Your task to perform on an android device: make emails show in primary in the gmail app Image 0: 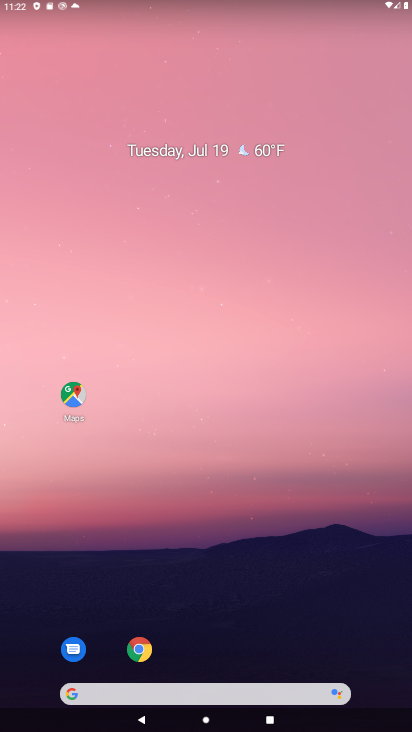
Step 0: drag from (210, 686) to (193, 35)
Your task to perform on an android device: make emails show in primary in the gmail app Image 1: 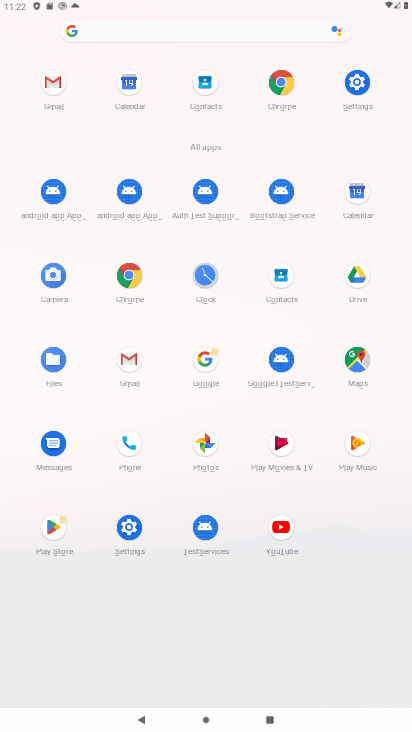
Step 1: click (128, 369)
Your task to perform on an android device: make emails show in primary in the gmail app Image 2: 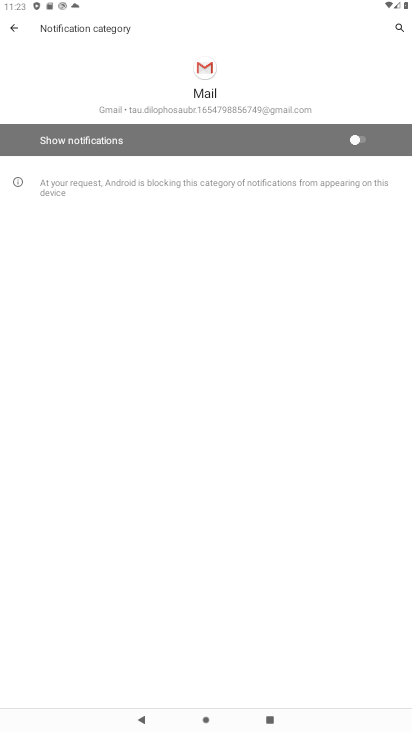
Step 2: click (5, 17)
Your task to perform on an android device: make emails show in primary in the gmail app Image 3: 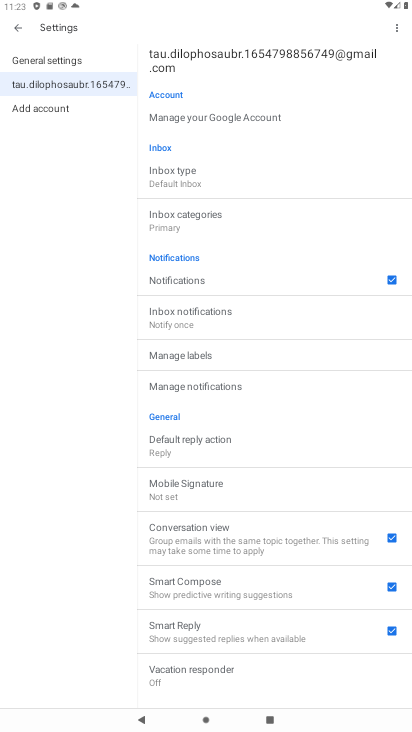
Step 3: click (200, 171)
Your task to perform on an android device: make emails show in primary in the gmail app Image 4: 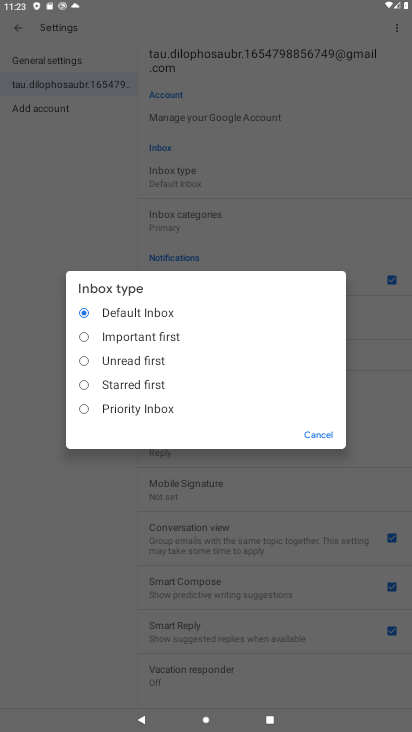
Step 4: click (140, 311)
Your task to perform on an android device: make emails show in primary in the gmail app Image 5: 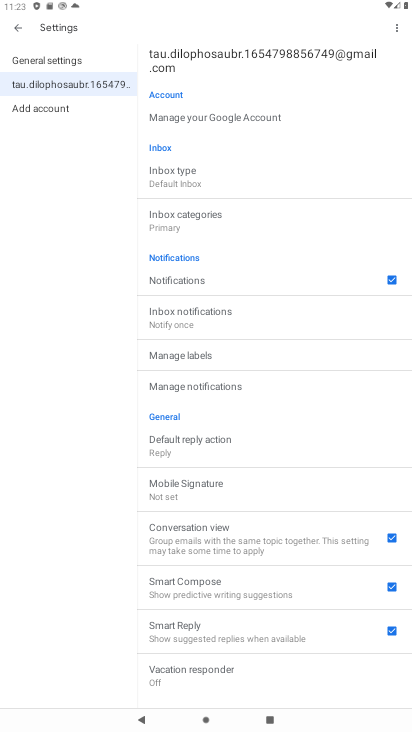
Step 5: task complete